Your task to perform on an android device: turn on data saver in the chrome app Image 0: 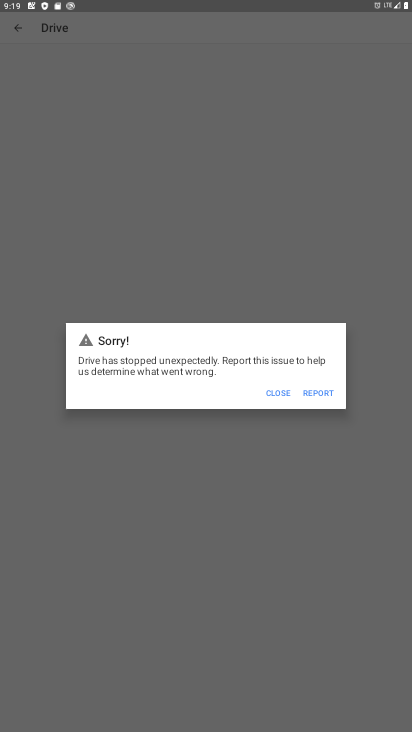
Step 0: press home button
Your task to perform on an android device: turn on data saver in the chrome app Image 1: 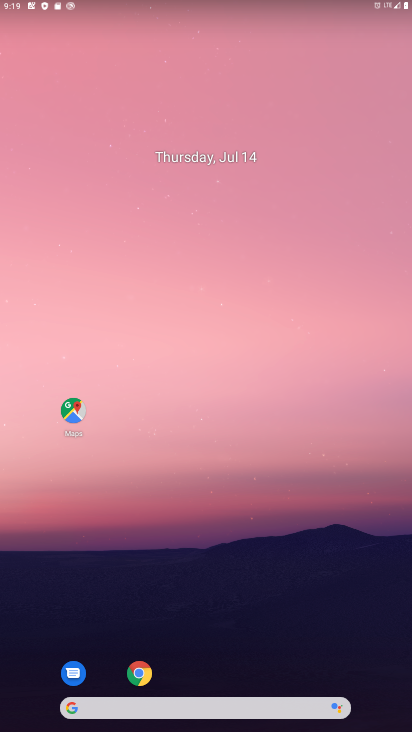
Step 1: click (139, 673)
Your task to perform on an android device: turn on data saver in the chrome app Image 2: 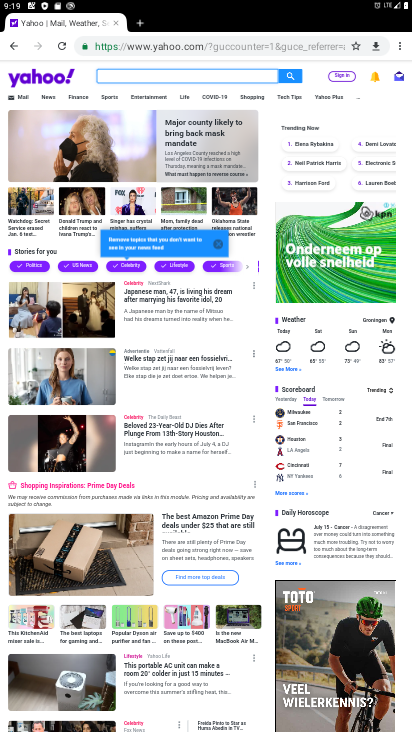
Step 2: click (399, 46)
Your task to perform on an android device: turn on data saver in the chrome app Image 3: 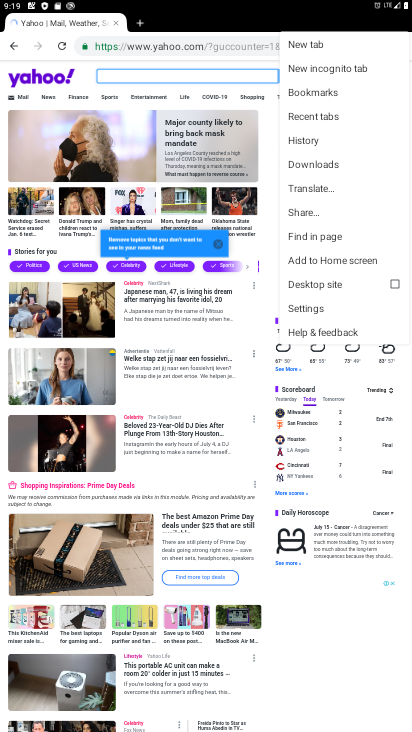
Step 3: click (313, 308)
Your task to perform on an android device: turn on data saver in the chrome app Image 4: 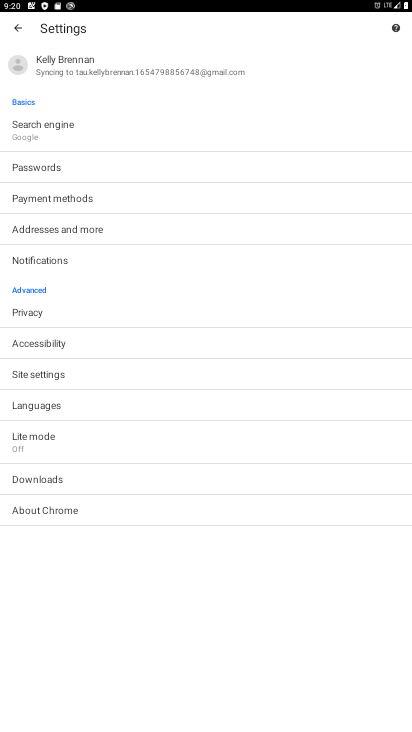
Step 4: click (49, 437)
Your task to perform on an android device: turn on data saver in the chrome app Image 5: 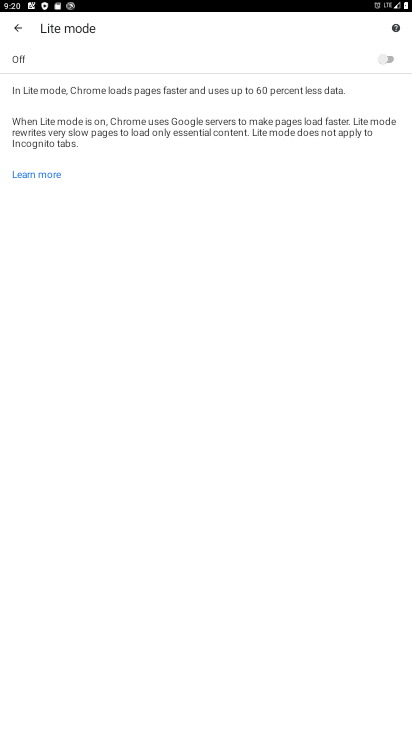
Step 5: click (382, 57)
Your task to perform on an android device: turn on data saver in the chrome app Image 6: 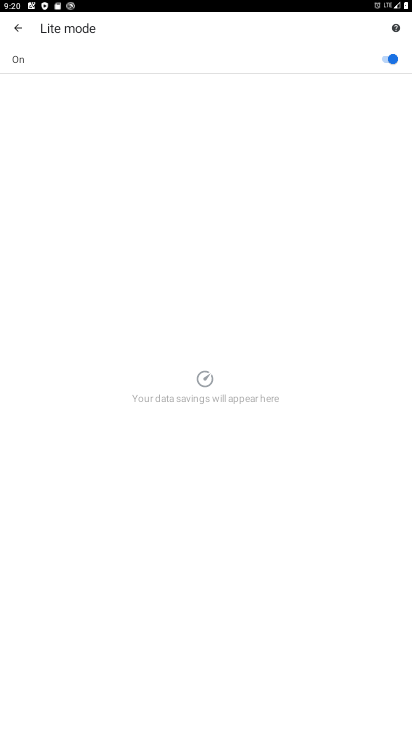
Step 6: task complete